Your task to perform on an android device: check google app version Image 0: 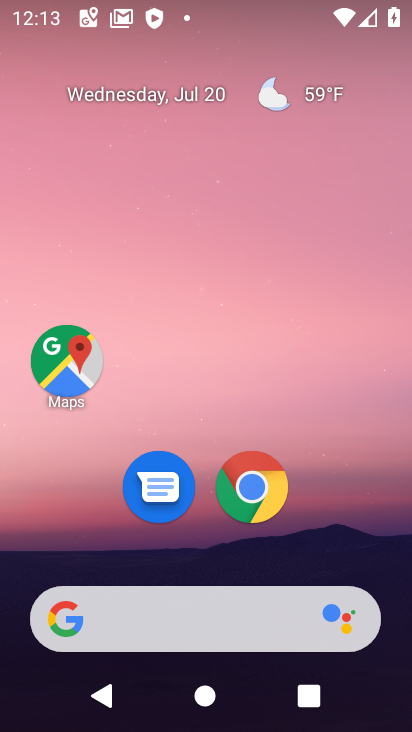
Step 0: drag from (200, 560) to (234, 5)
Your task to perform on an android device: check google app version Image 1: 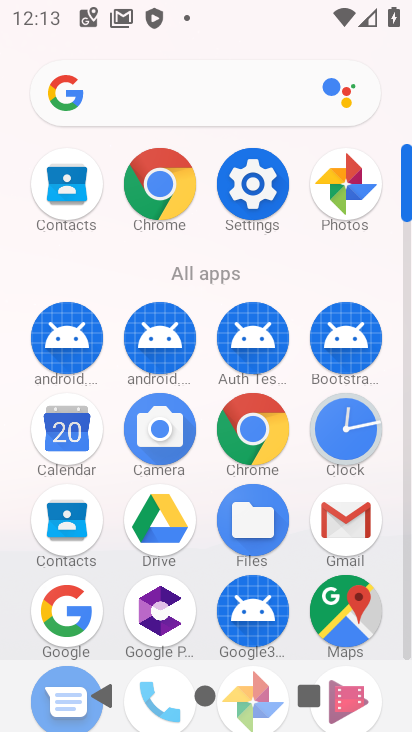
Step 1: click (90, 609)
Your task to perform on an android device: check google app version Image 2: 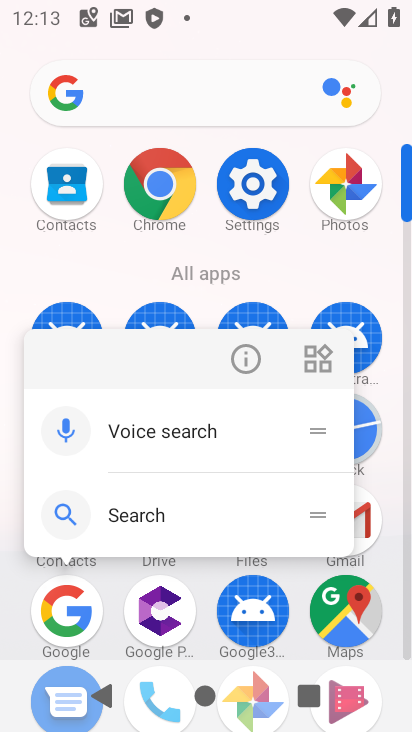
Step 2: click (240, 347)
Your task to perform on an android device: check google app version Image 3: 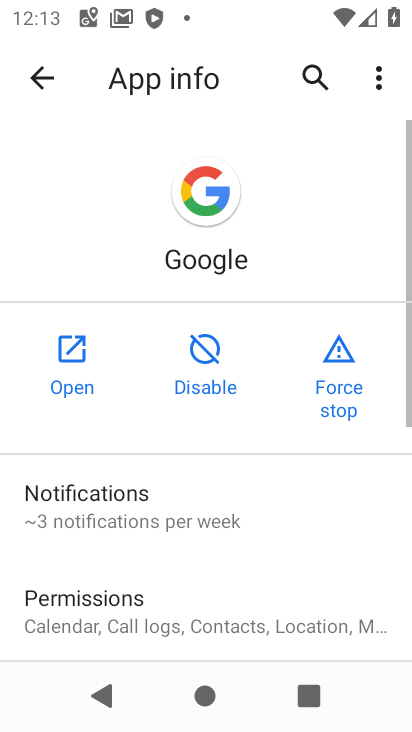
Step 3: drag from (137, 621) to (258, 4)
Your task to perform on an android device: check google app version Image 4: 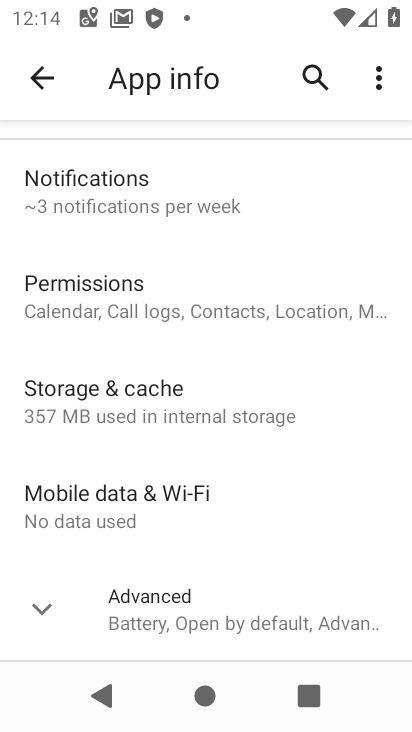
Step 4: click (182, 627)
Your task to perform on an android device: check google app version Image 5: 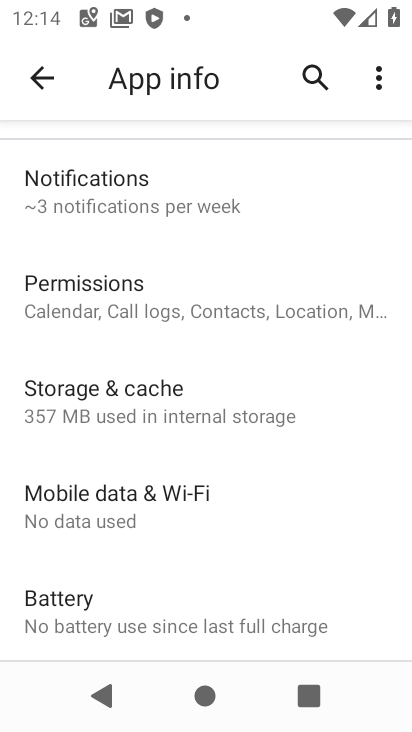
Step 5: task complete